Your task to perform on an android device: change notifications settings Image 0: 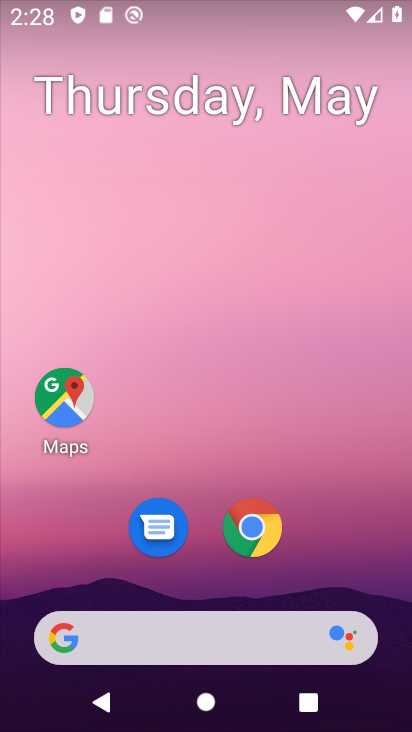
Step 0: press home button
Your task to perform on an android device: change notifications settings Image 1: 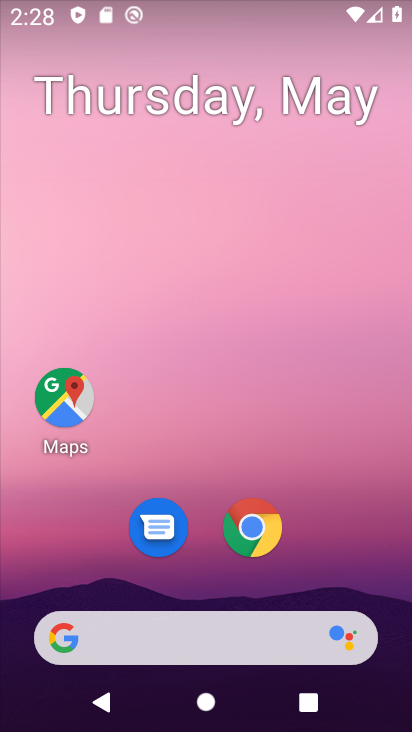
Step 1: drag from (318, 584) to (290, 68)
Your task to perform on an android device: change notifications settings Image 2: 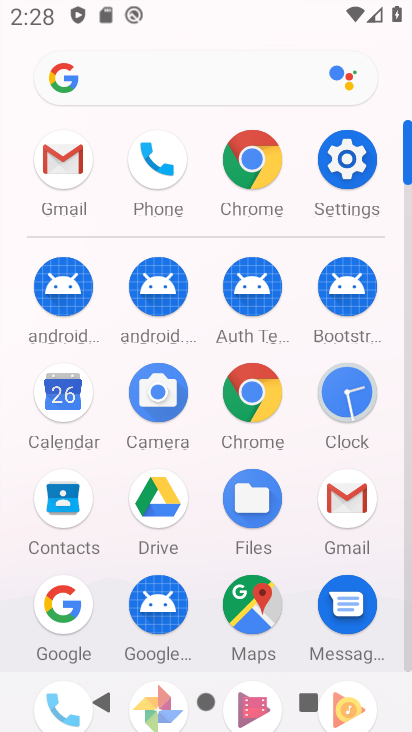
Step 2: click (343, 166)
Your task to perform on an android device: change notifications settings Image 3: 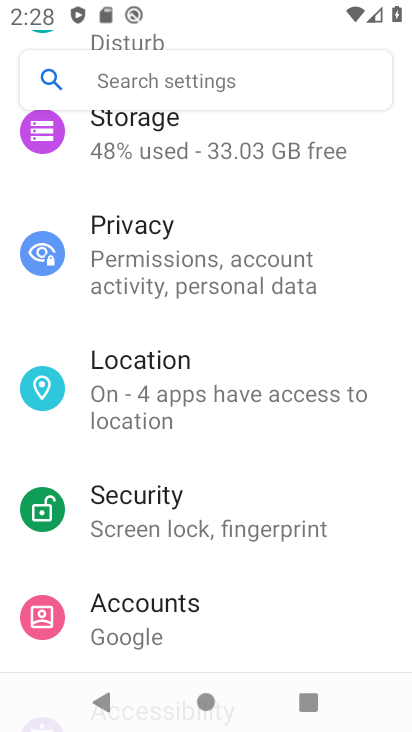
Step 3: drag from (309, 141) to (295, 703)
Your task to perform on an android device: change notifications settings Image 4: 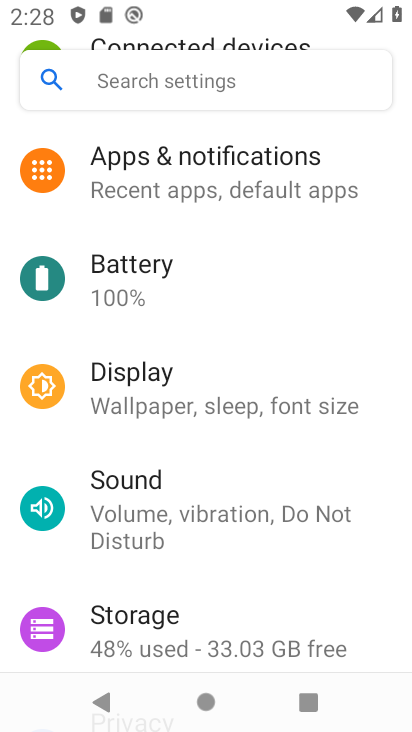
Step 4: click (347, 156)
Your task to perform on an android device: change notifications settings Image 5: 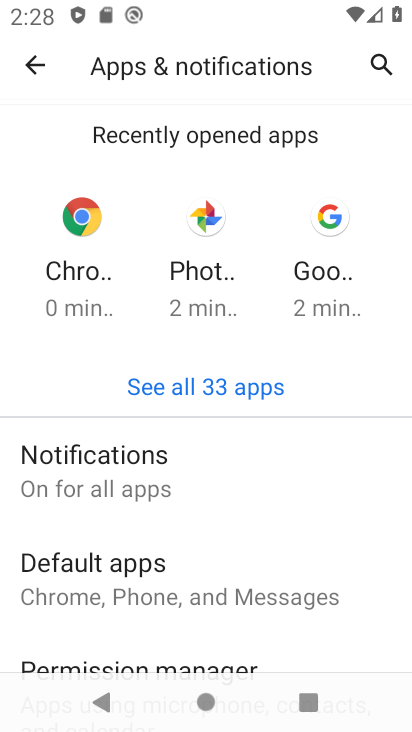
Step 5: click (185, 468)
Your task to perform on an android device: change notifications settings Image 6: 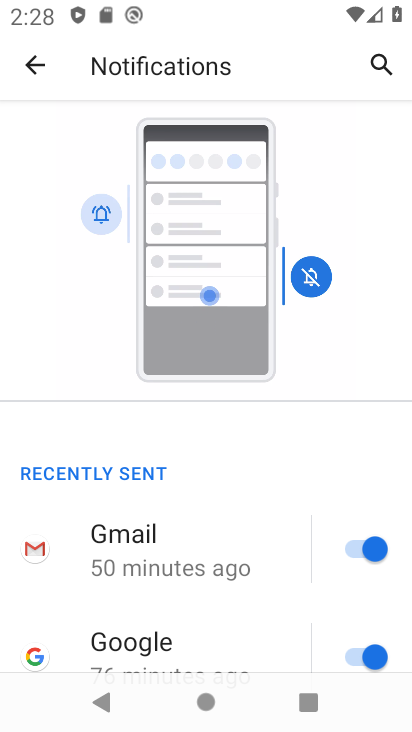
Step 6: drag from (187, 435) to (234, 11)
Your task to perform on an android device: change notifications settings Image 7: 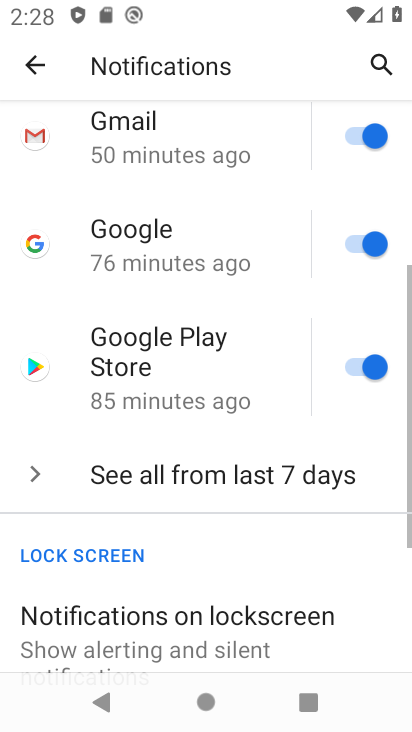
Step 7: drag from (245, 376) to (251, 228)
Your task to perform on an android device: change notifications settings Image 8: 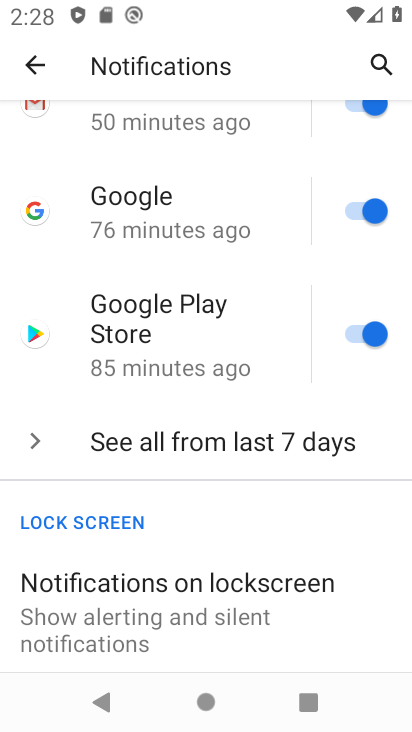
Step 8: drag from (397, 661) to (366, 282)
Your task to perform on an android device: change notifications settings Image 9: 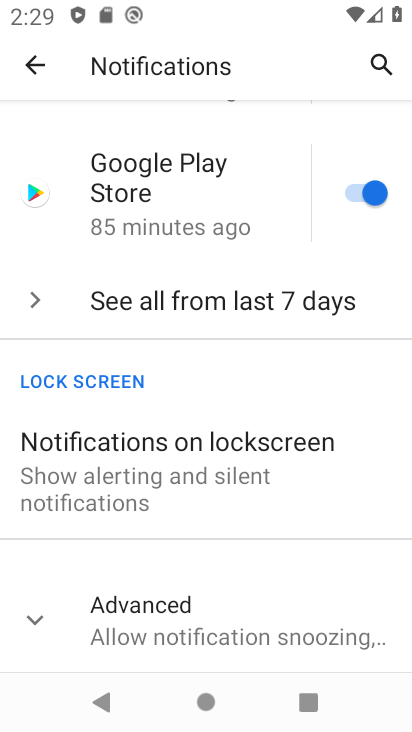
Step 9: click (375, 198)
Your task to perform on an android device: change notifications settings Image 10: 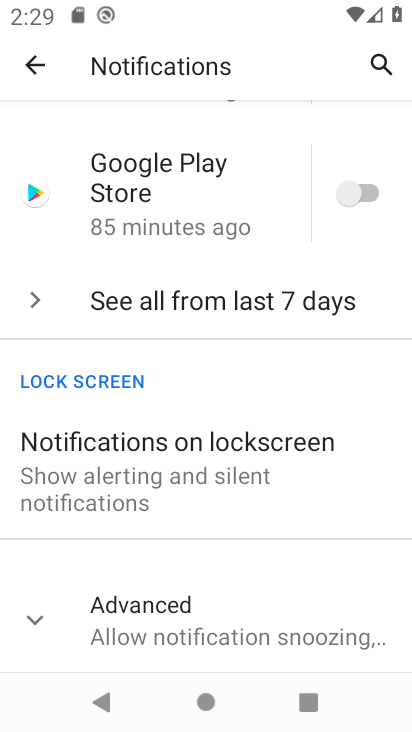
Step 10: click (235, 591)
Your task to perform on an android device: change notifications settings Image 11: 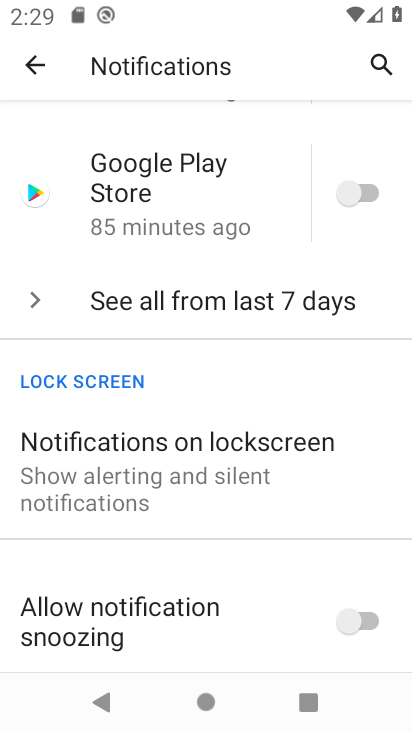
Step 11: click (234, 586)
Your task to perform on an android device: change notifications settings Image 12: 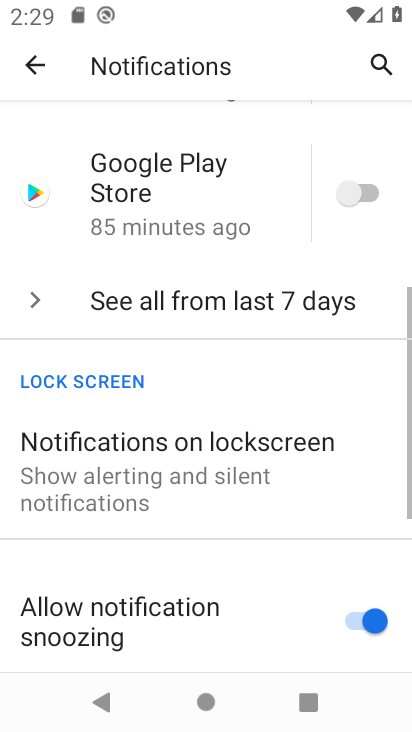
Step 12: drag from (234, 586) to (266, 201)
Your task to perform on an android device: change notifications settings Image 13: 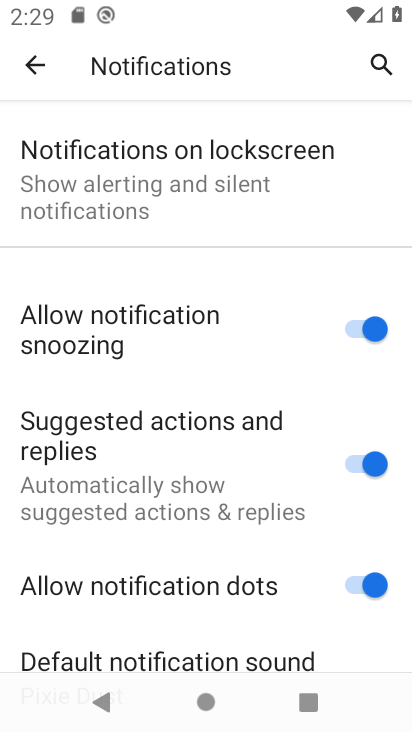
Step 13: click (246, 411)
Your task to perform on an android device: change notifications settings Image 14: 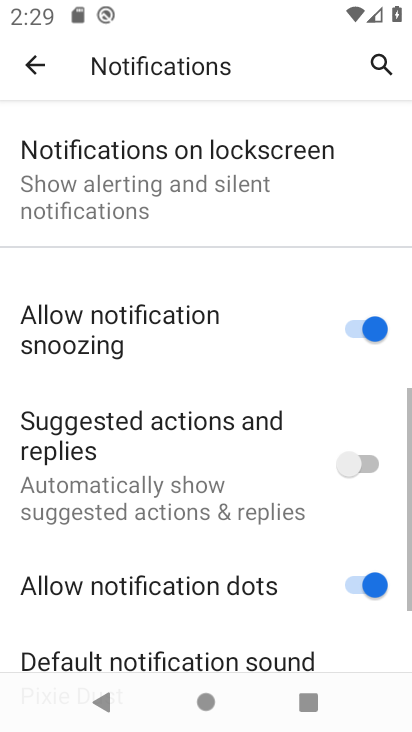
Step 14: click (262, 633)
Your task to perform on an android device: change notifications settings Image 15: 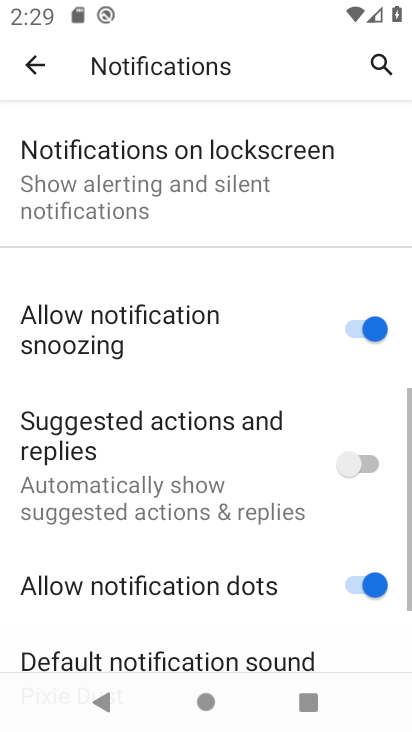
Step 15: click (262, 604)
Your task to perform on an android device: change notifications settings Image 16: 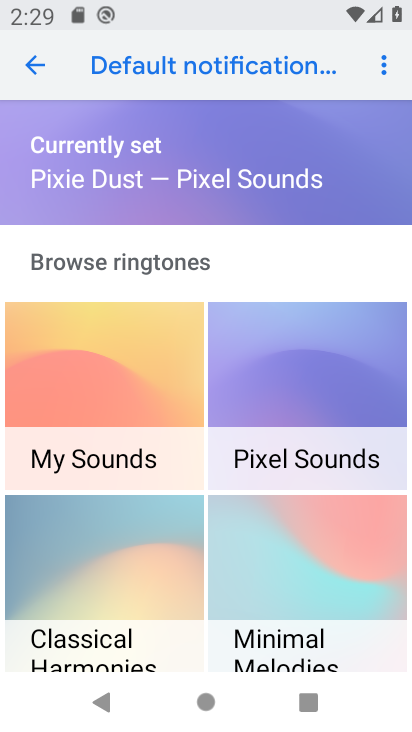
Step 16: task complete